Your task to perform on an android device: open app "Chime – Mobile Banking" (install if not already installed) Image 0: 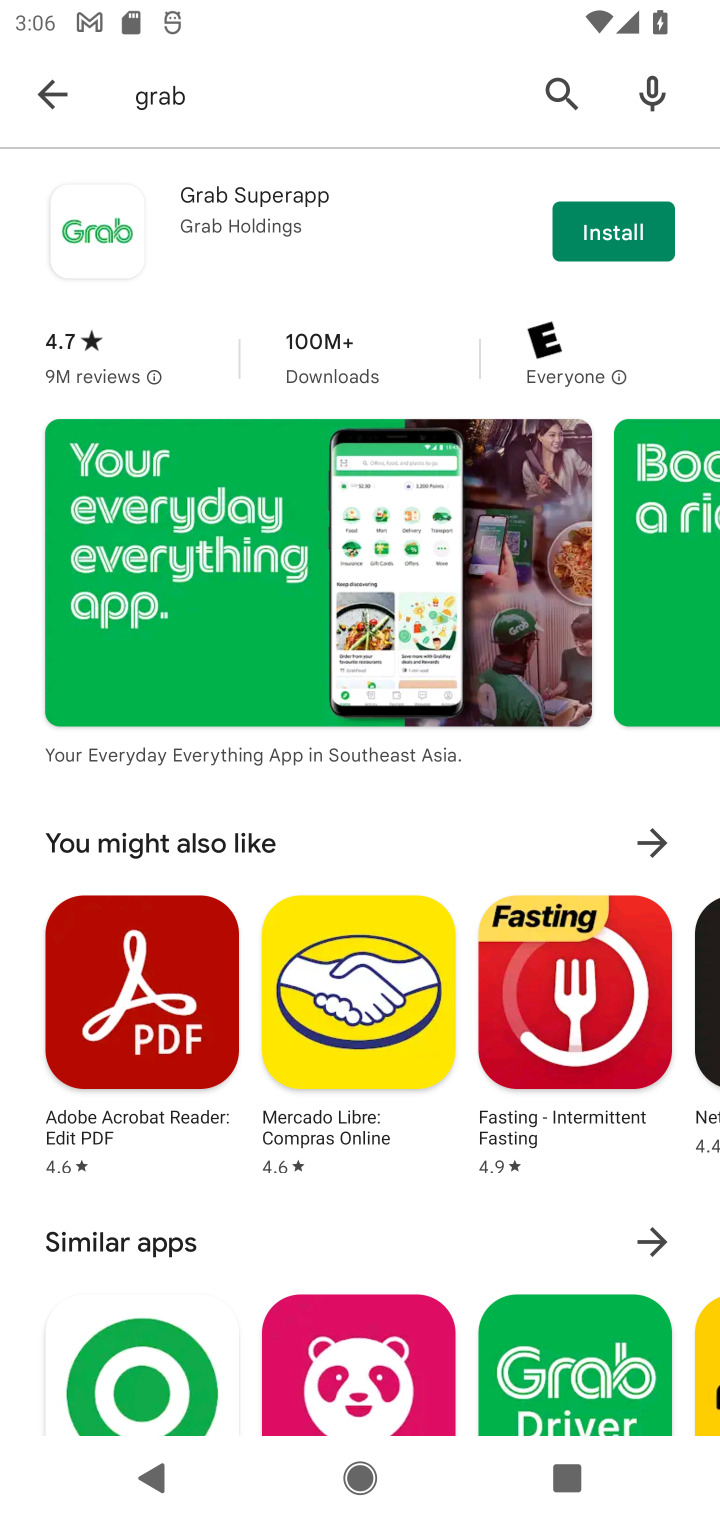
Step 0: click (552, 72)
Your task to perform on an android device: open app "Chime – Mobile Banking" (install if not already installed) Image 1: 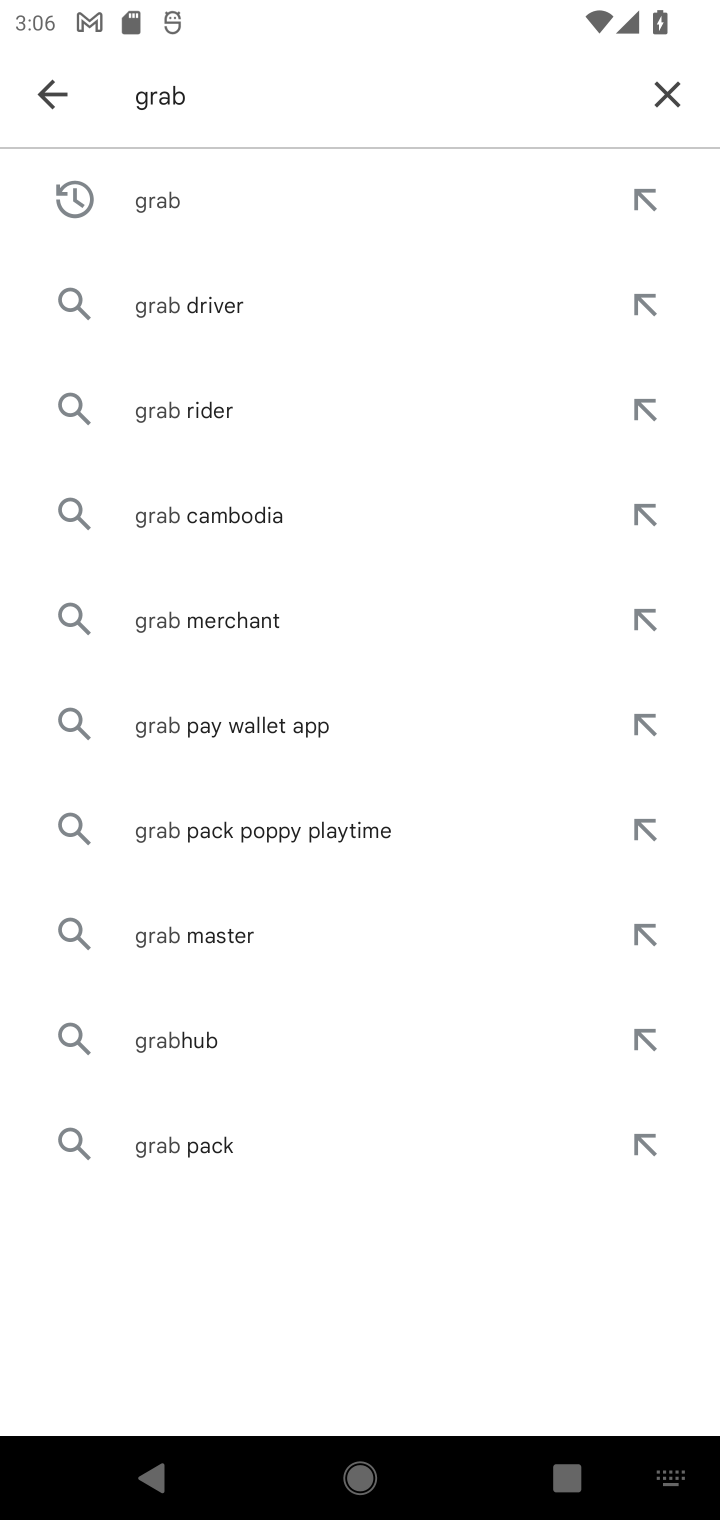
Step 1: click (675, 97)
Your task to perform on an android device: open app "Chime – Mobile Banking" (install if not already installed) Image 2: 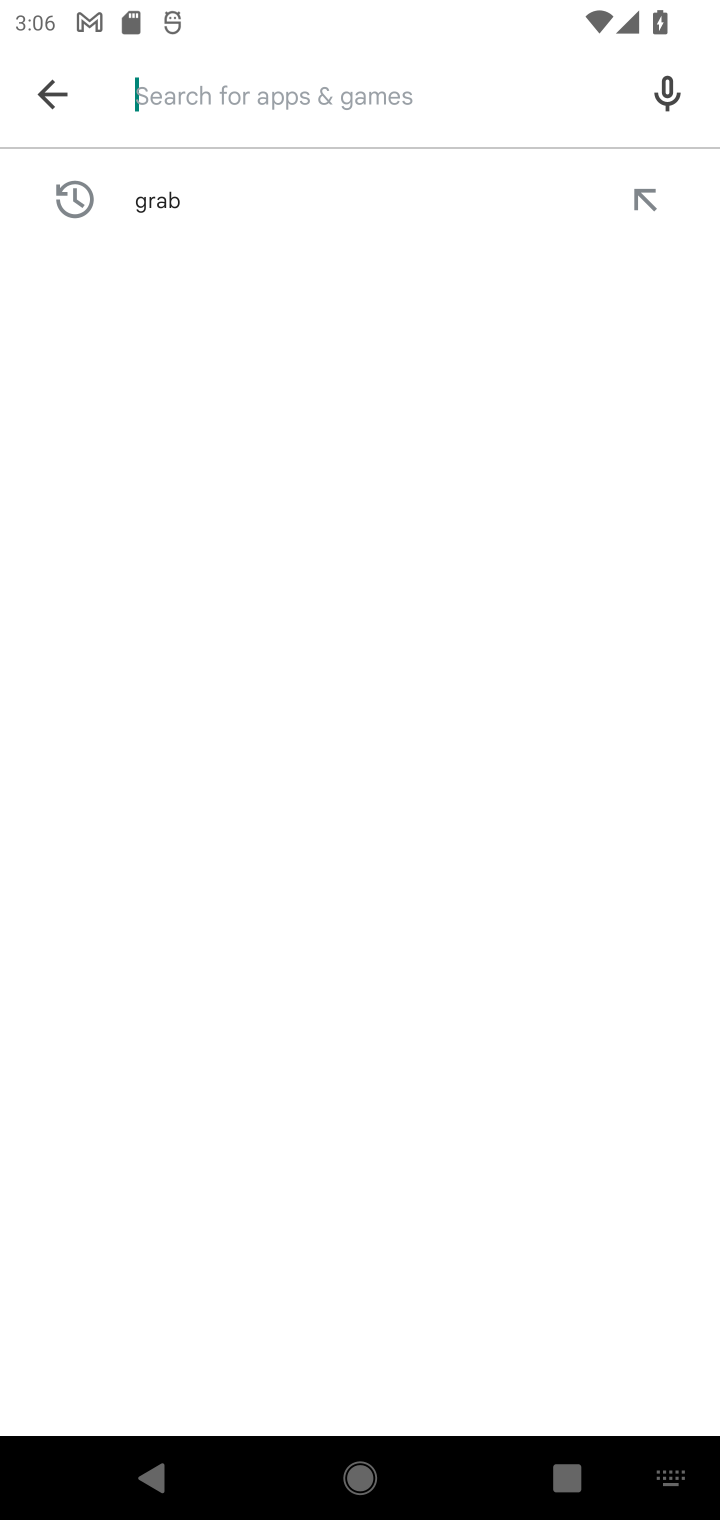
Step 2: type "Chime - mobile banking"
Your task to perform on an android device: open app "Chime – Mobile Banking" (install if not already installed) Image 3: 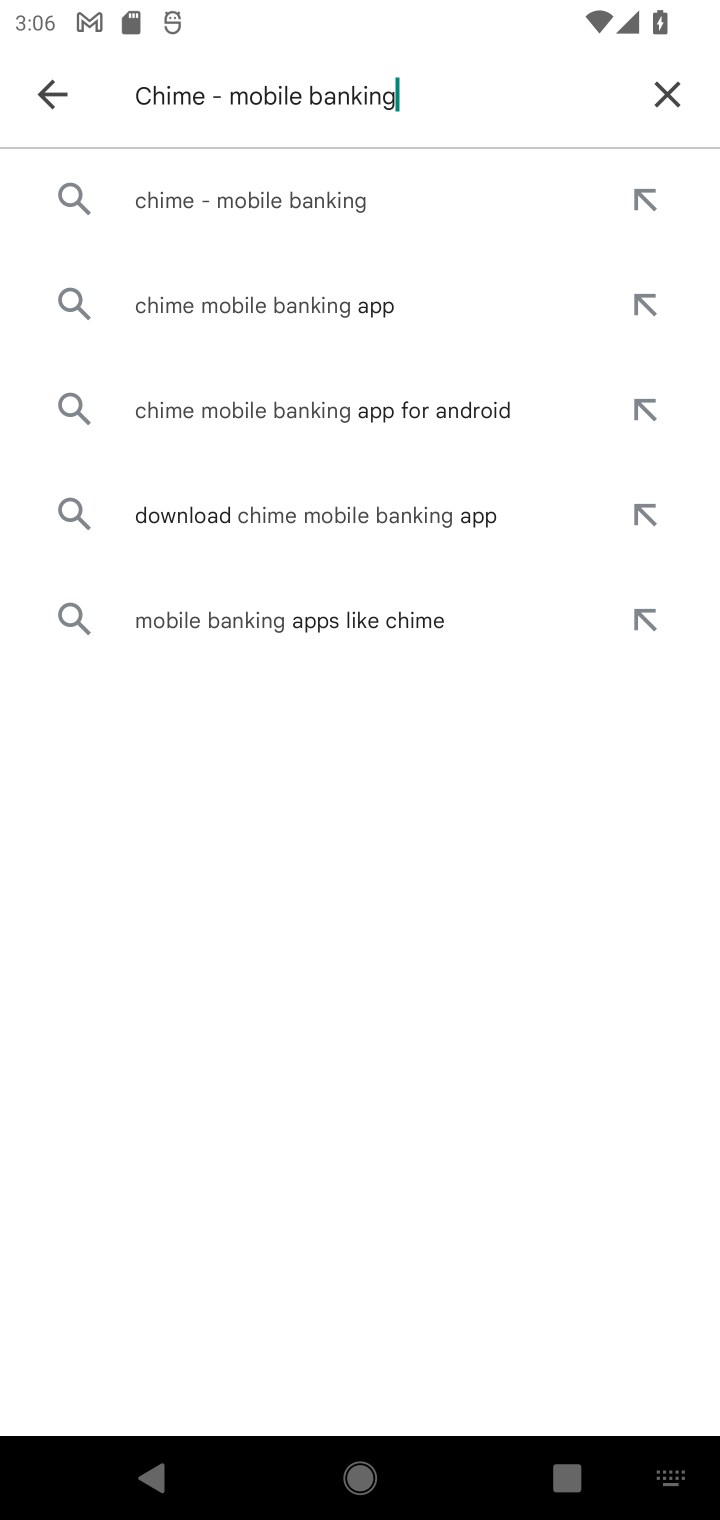
Step 3: click (270, 216)
Your task to perform on an android device: open app "Chime – Mobile Banking" (install if not already installed) Image 4: 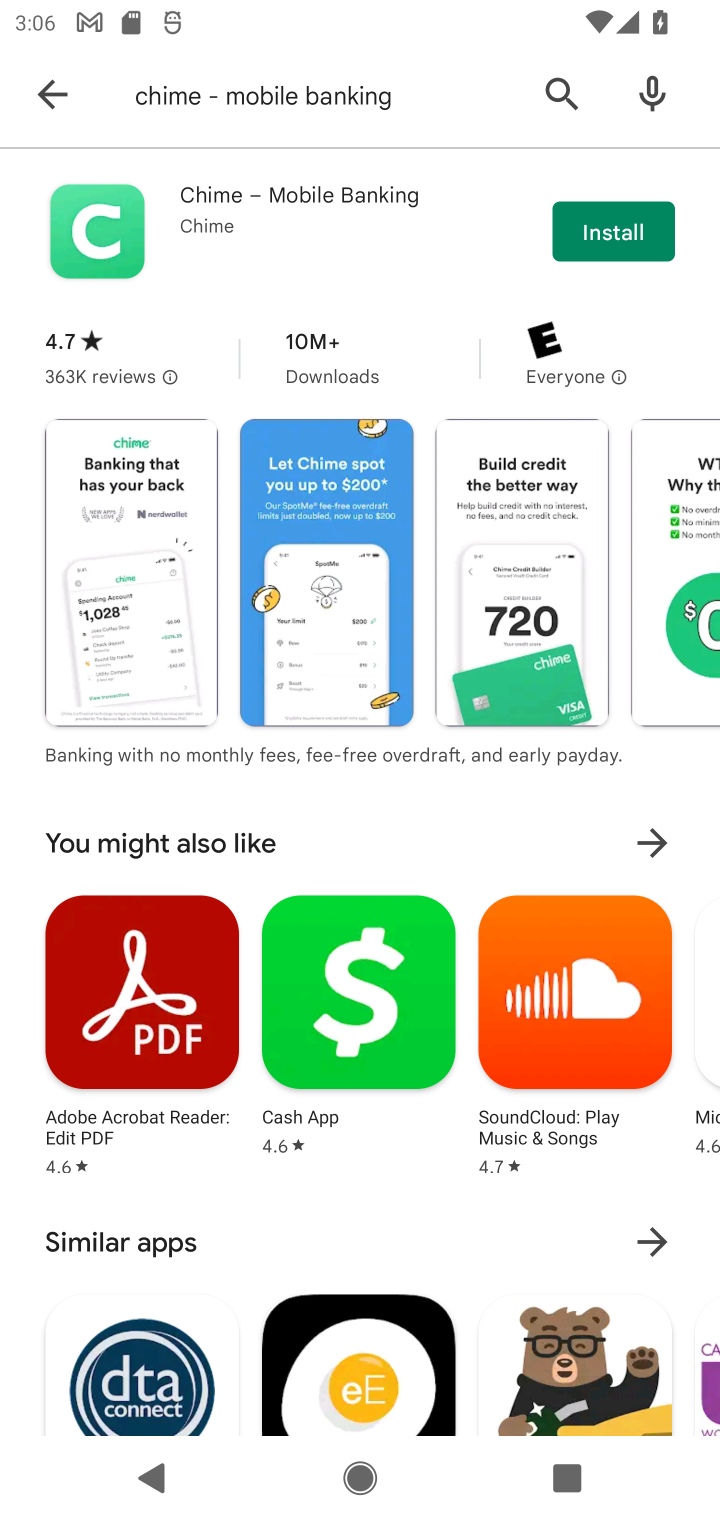
Step 4: click (611, 242)
Your task to perform on an android device: open app "Chime – Mobile Banking" (install if not already installed) Image 5: 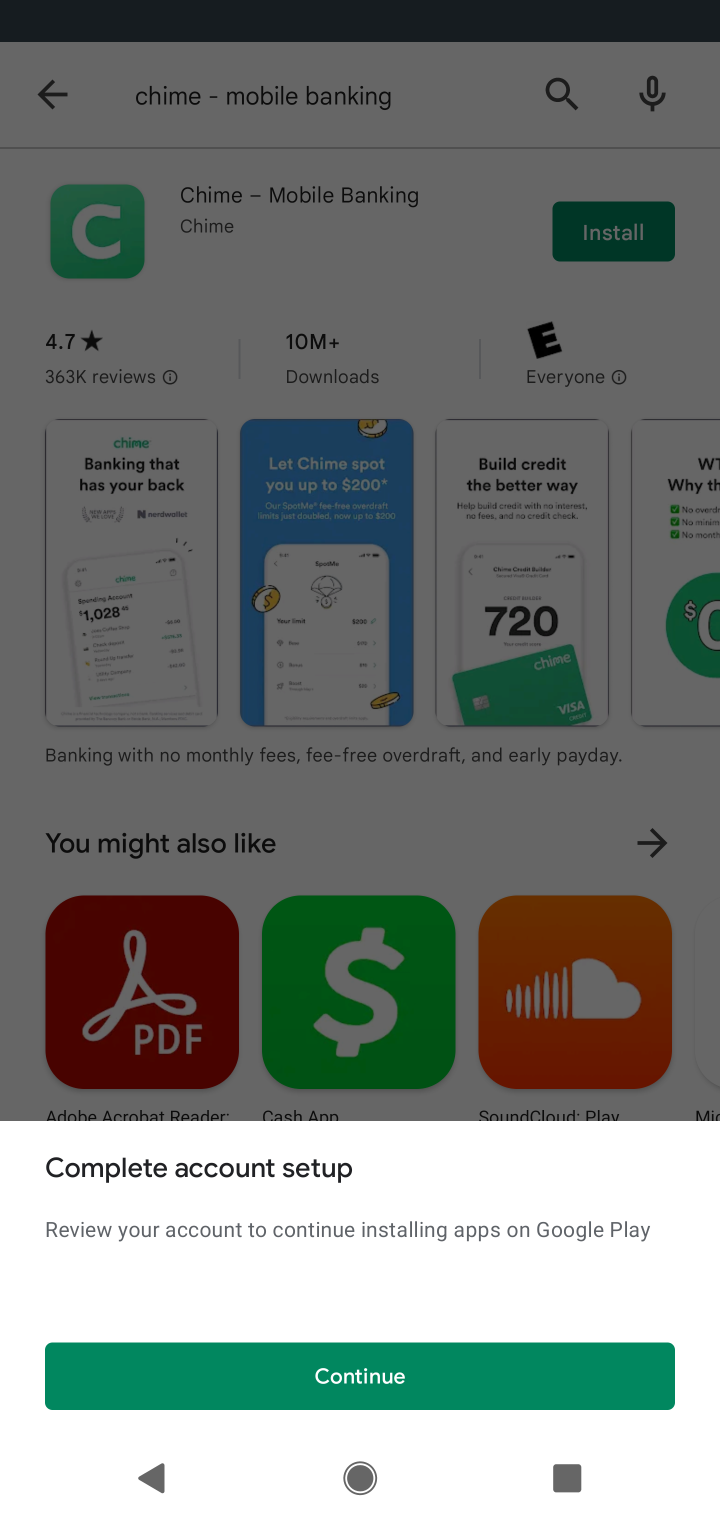
Step 5: click (309, 1379)
Your task to perform on an android device: open app "Chime – Mobile Banking" (install if not already installed) Image 6: 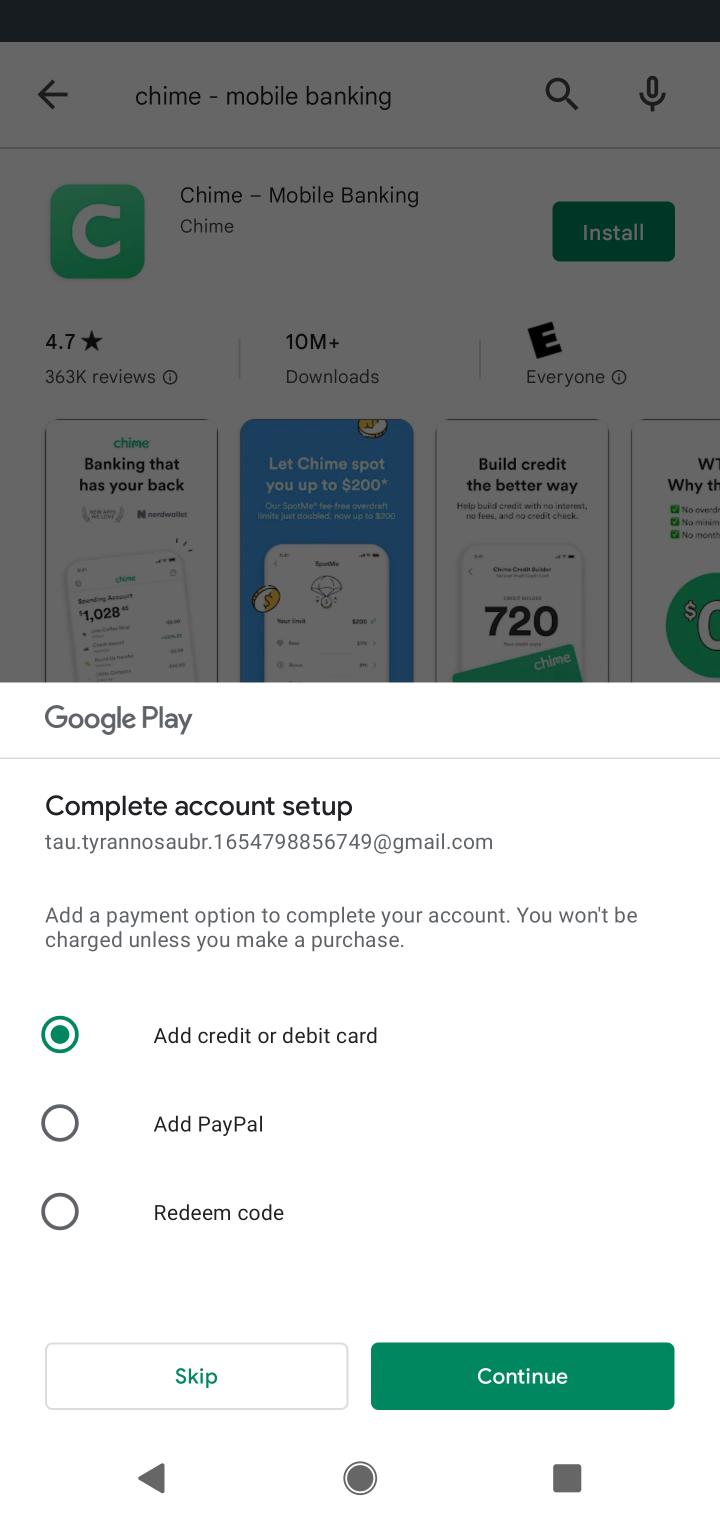
Step 6: click (198, 1374)
Your task to perform on an android device: open app "Chime – Mobile Banking" (install if not already installed) Image 7: 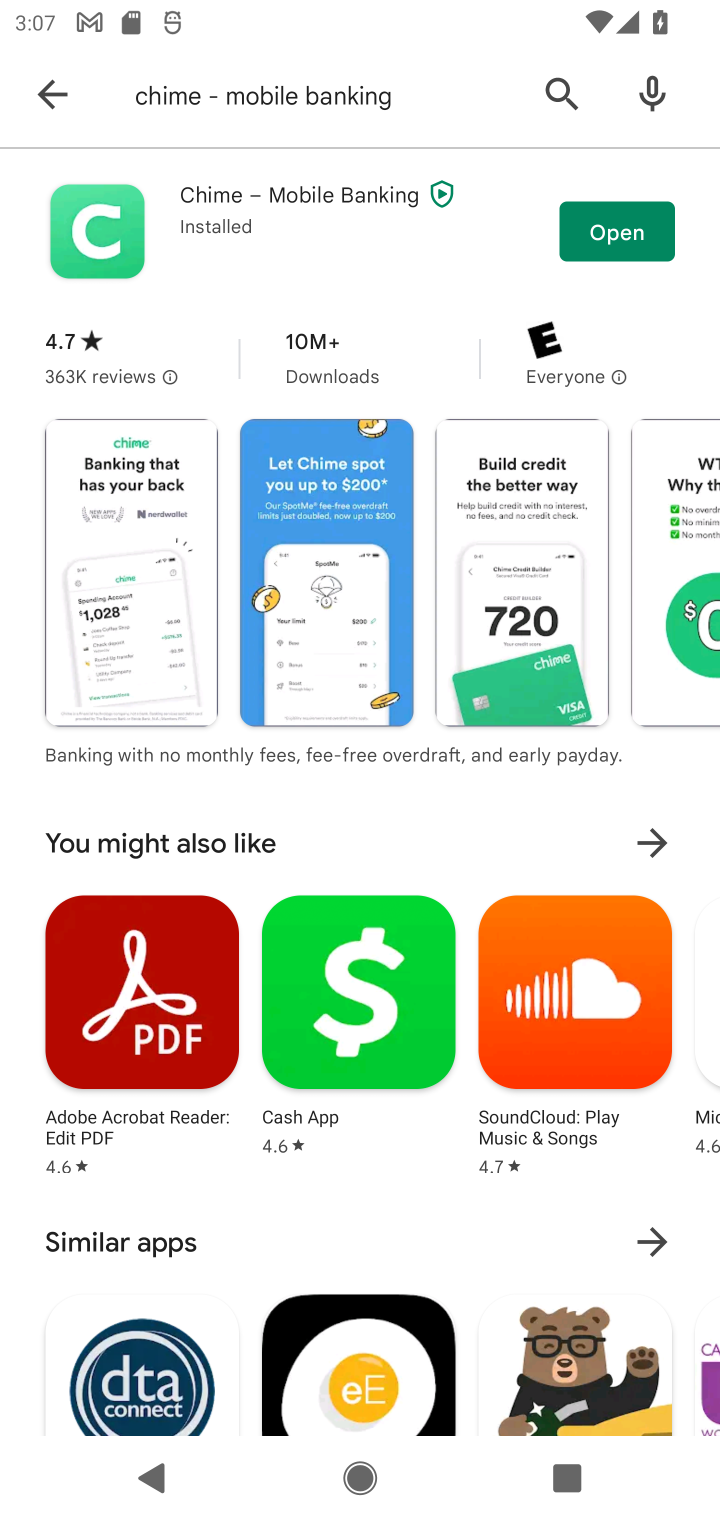
Step 7: click (624, 225)
Your task to perform on an android device: open app "Chime – Mobile Banking" (install if not already installed) Image 8: 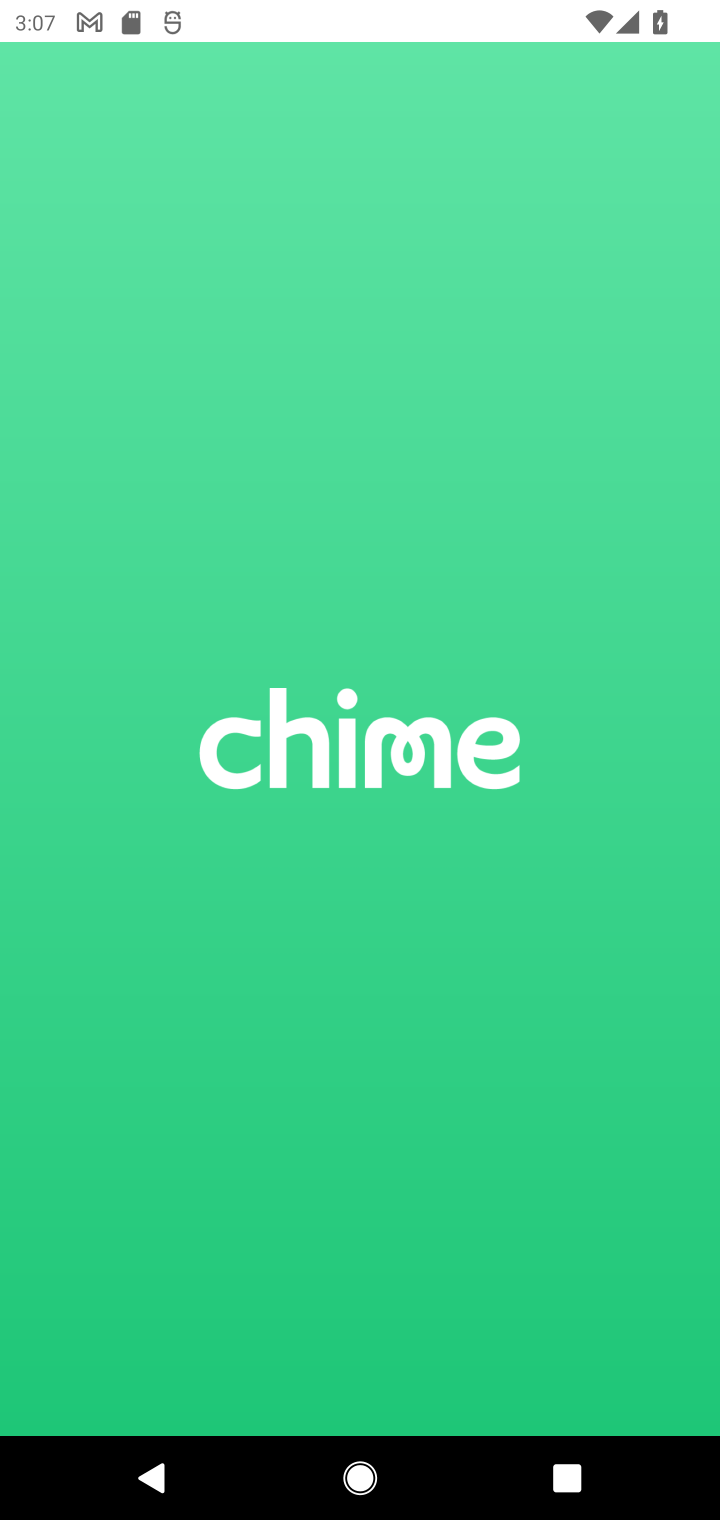
Step 8: task complete